Your task to perform on an android device: open chrome and create a bookmark for the current page Image 0: 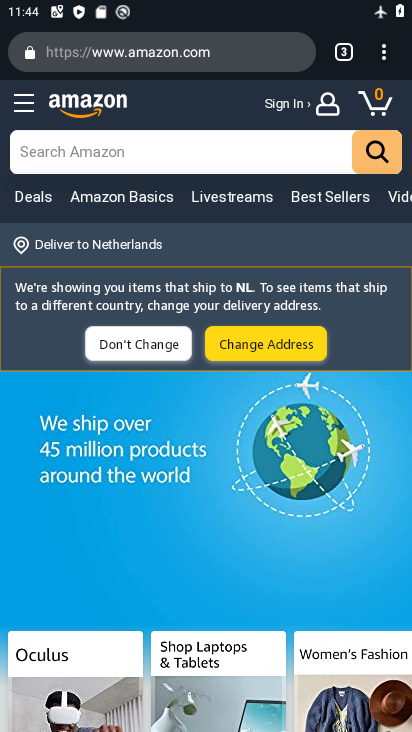
Step 0: press home button
Your task to perform on an android device: open chrome and create a bookmark for the current page Image 1: 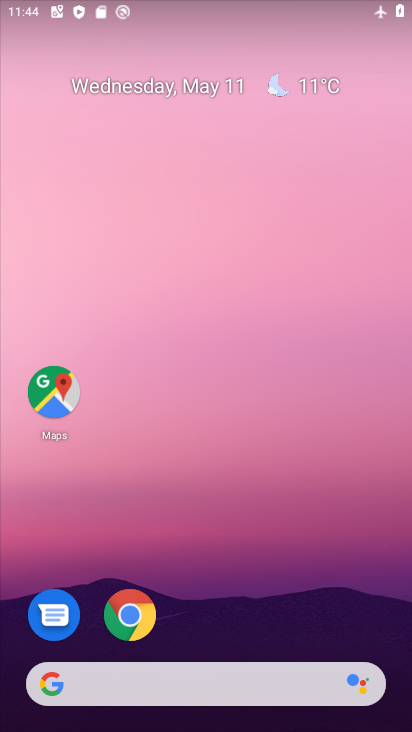
Step 1: click (128, 615)
Your task to perform on an android device: open chrome and create a bookmark for the current page Image 2: 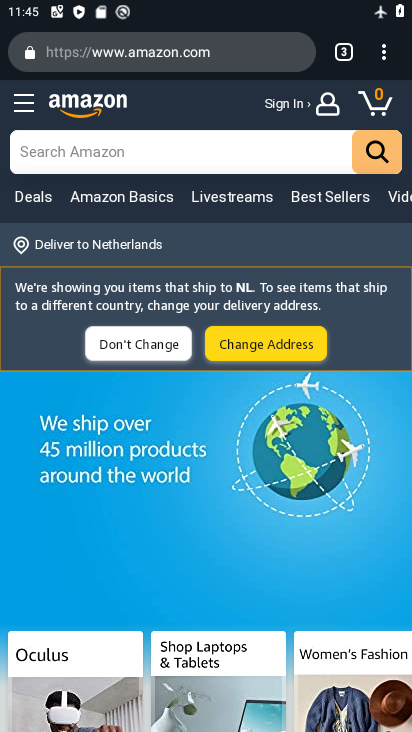
Step 2: task complete